Your task to perform on an android device: turn on translation in the chrome app Image 0: 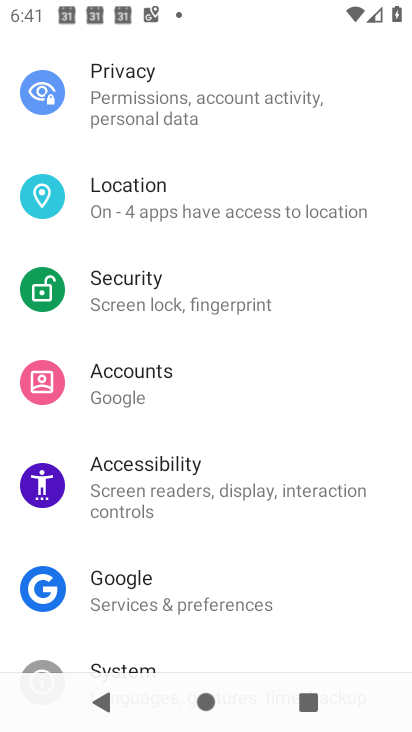
Step 0: press home button
Your task to perform on an android device: turn on translation in the chrome app Image 1: 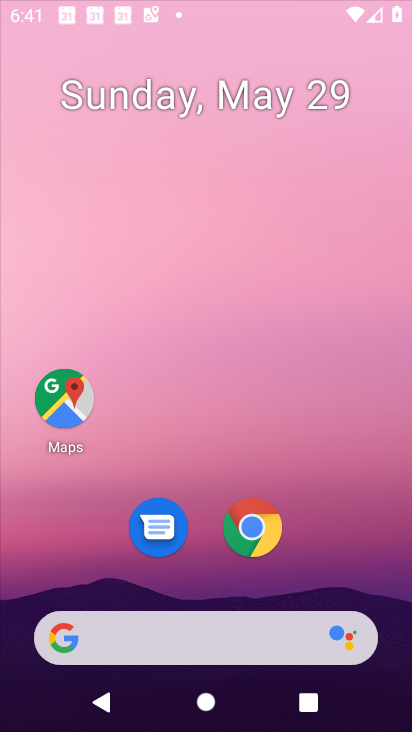
Step 1: drag from (295, 613) to (180, 140)
Your task to perform on an android device: turn on translation in the chrome app Image 2: 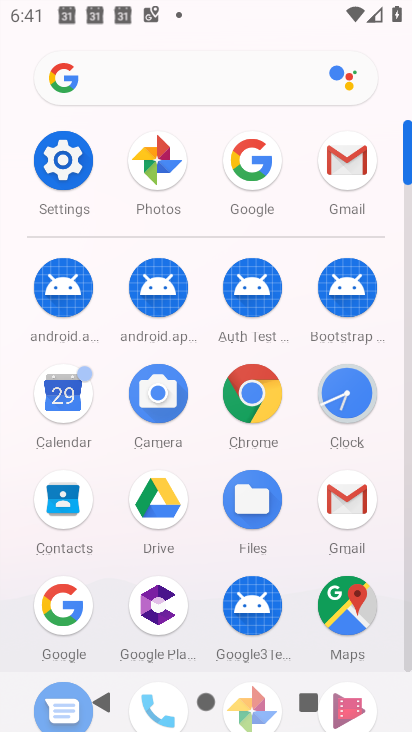
Step 2: click (257, 385)
Your task to perform on an android device: turn on translation in the chrome app Image 3: 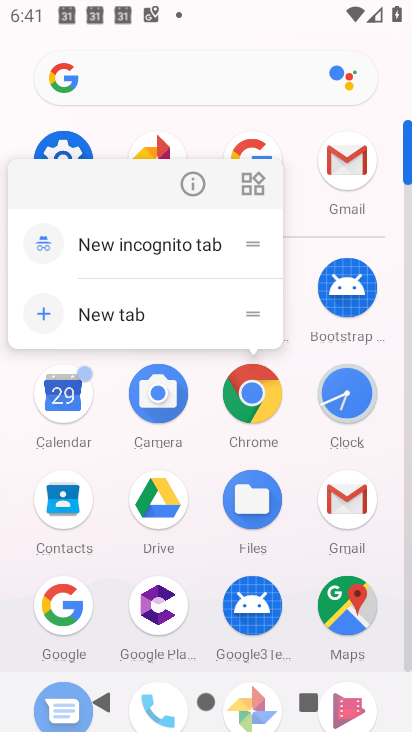
Step 3: click (246, 403)
Your task to perform on an android device: turn on translation in the chrome app Image 4: 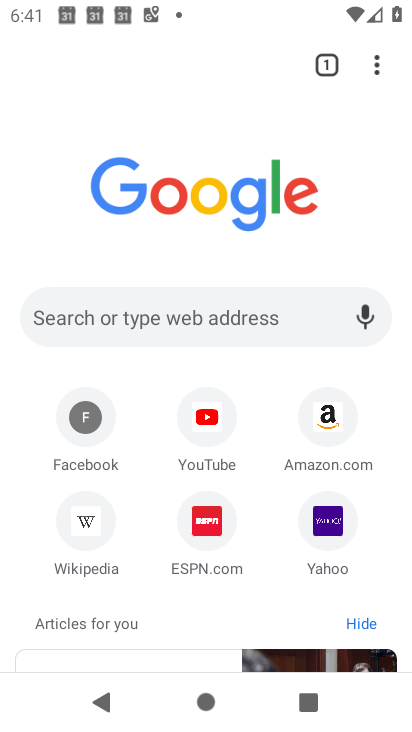
Step 4: click (381, 61)
Your task to perform on an android device: turn on translation in the chrome app Image 5: 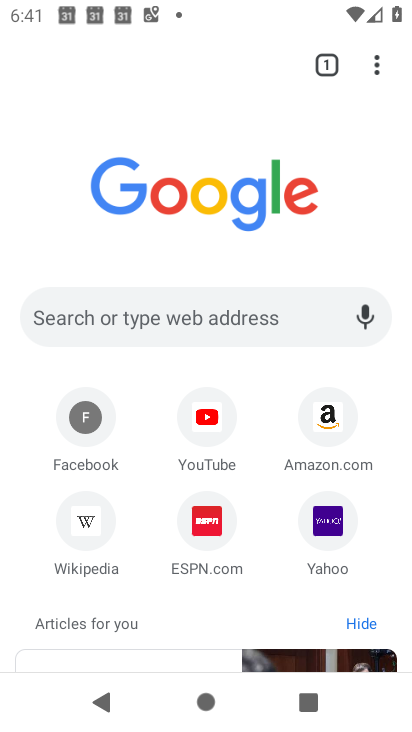
Step 5: click (378, 63)
Your task to perform on an android device: turn on translation in the chrome app Image 6: 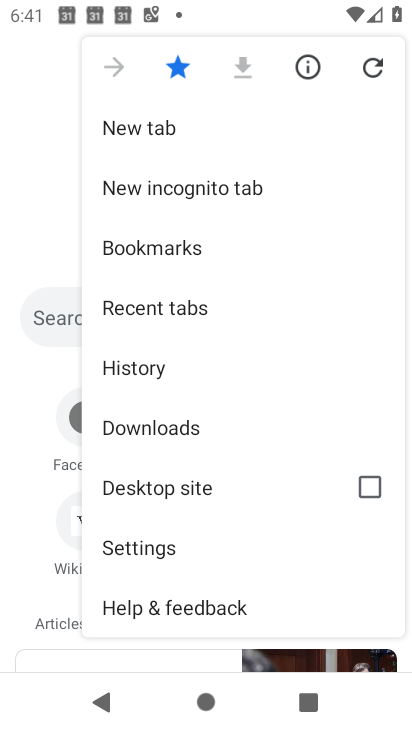
Step 6: click (155, 541)
Your task to perform on an android device: turn on translation in the chrome app Image 7: 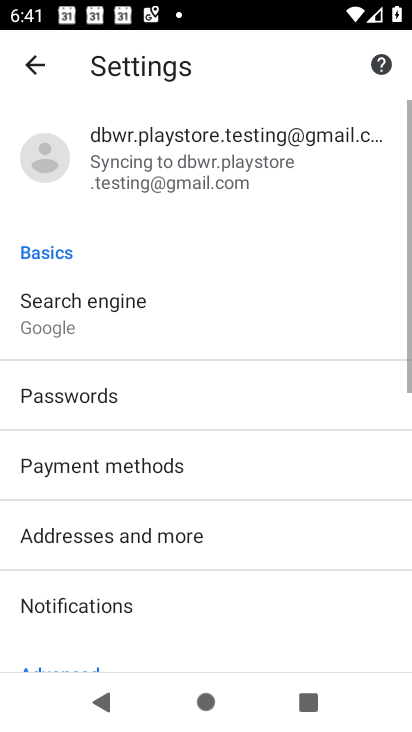
Step 7: drag from (89, 615) to (166, 199)
Your task to perform on an android device: turn on translation in the chrome app Image 8: 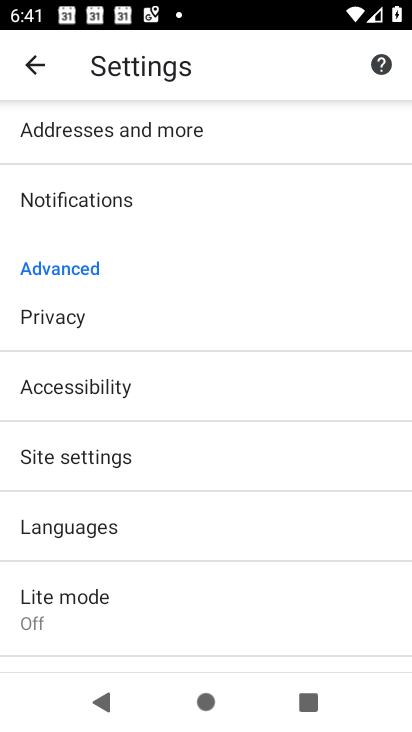
Step 8: click (104, 537)
Your task to perform on an android device: turn on translation in the chrome app Image 9: 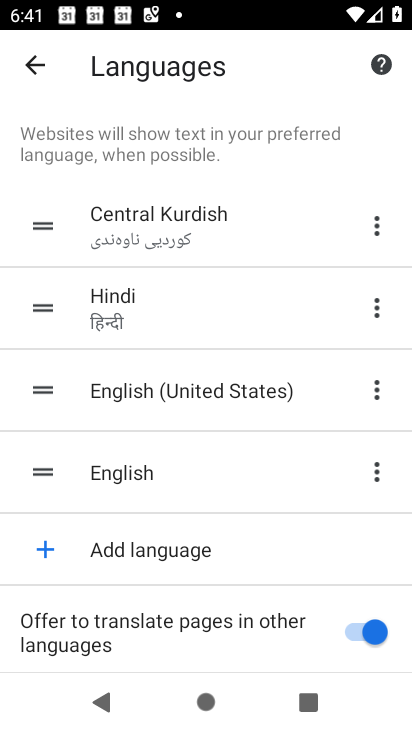
Step 9: task complete